Your task to perform on an android device: Turn on the flashlight Image 0: 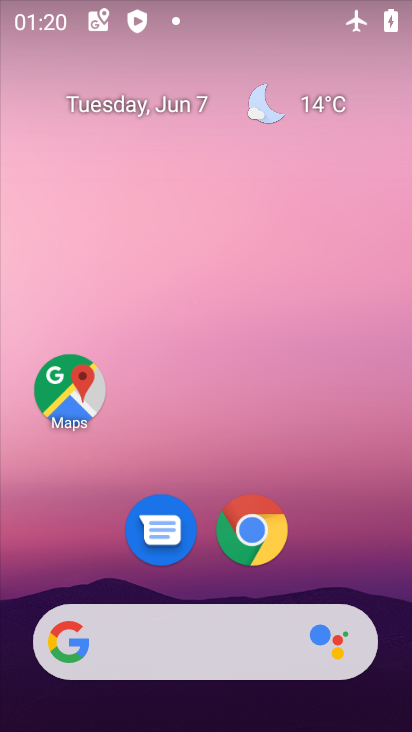
Step 0: drag from (234, 589) to (232, 296)
Your task to perform on an android device: Turn on the flashlight Image 1: 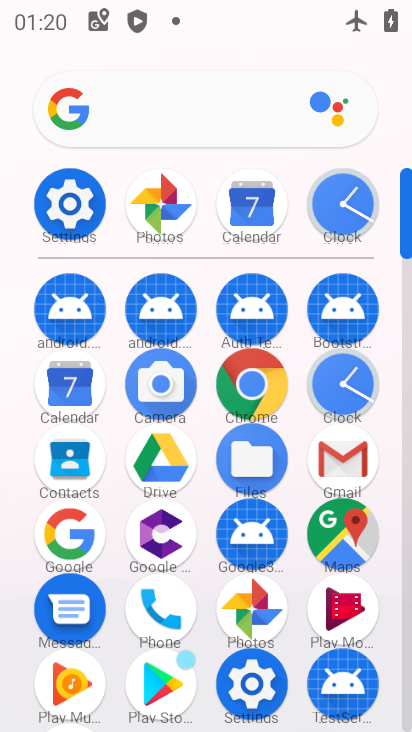
Step 1: click (78, 200)
Your task to perform on an android device: Turn on the flashlight Image 2: 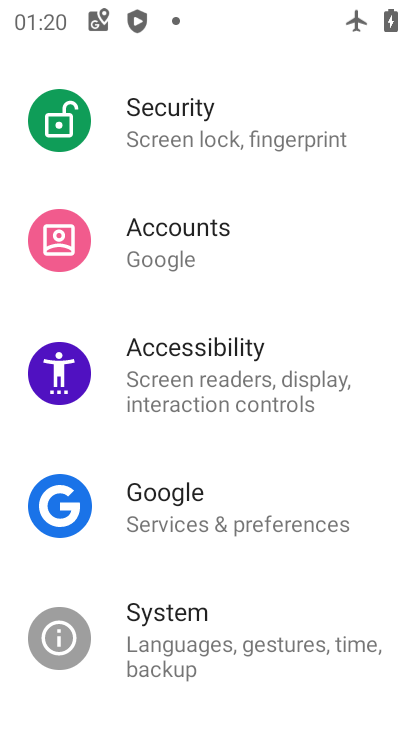
Step 2: task complete